Your task to perform on an android device: Open Reddit.com Image 0: 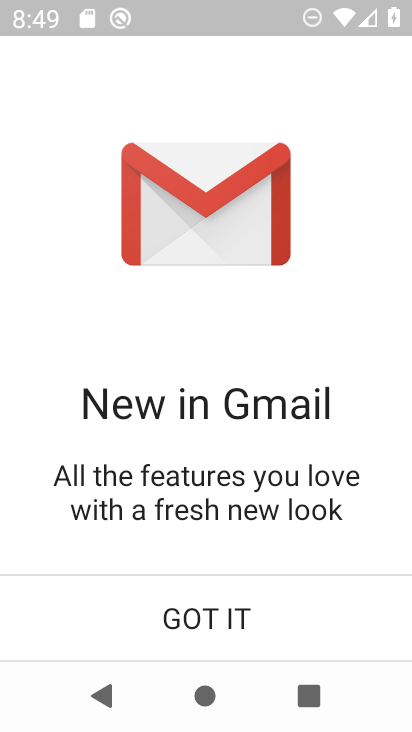
Step 0: press back button
Your task to perform on an android device: Open Reddit.com Image 1: 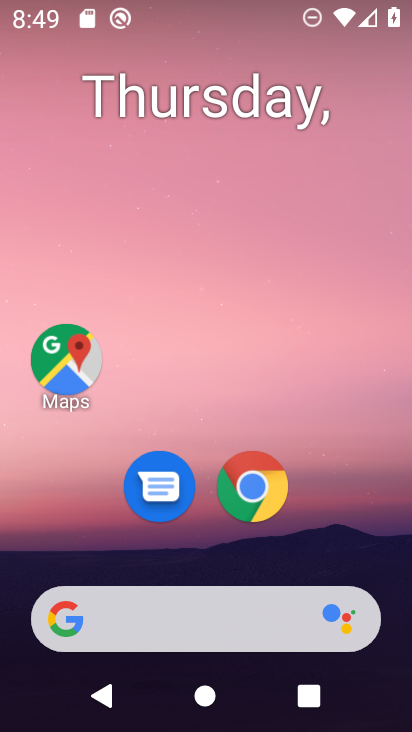
Step 1: click (272, 486)
Your task to perform on an android device: Open Reddit.com Image 2: 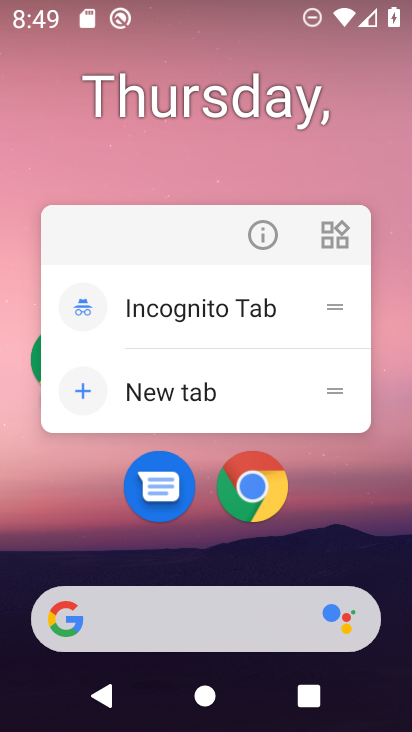
Step 2: click (256, 492)
Your task to perform on an android device: Open Reddit.com Image 3: 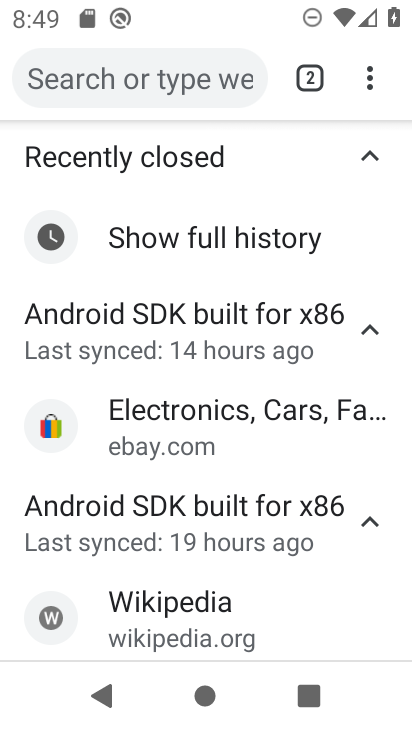
Step 3: click (320, 83)
Your task to perform on an android device: Open Reddit.com Image 4: 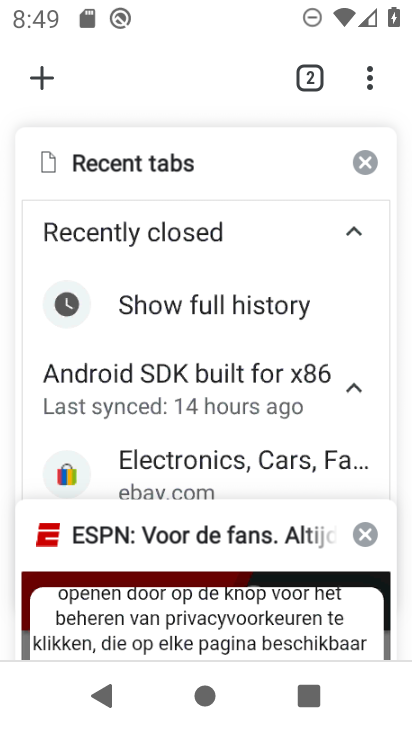
Step 4: click (35, 82)
Your task to perform on an android device: Open Reddit.com Image 5: 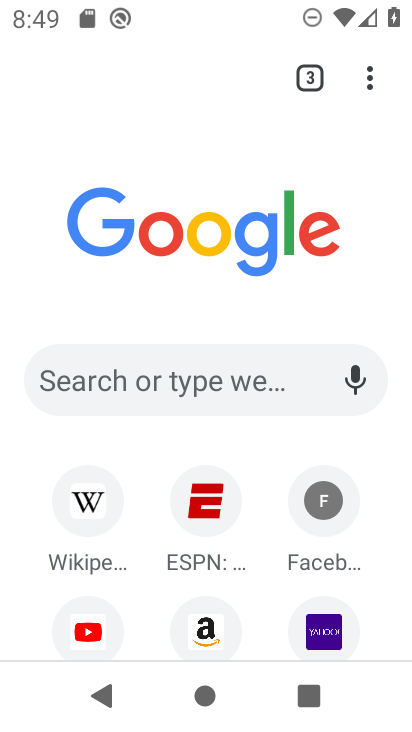
Step 5: click (163, 388)
Your task to perform on an android device: Open Reddit.com Image 6: 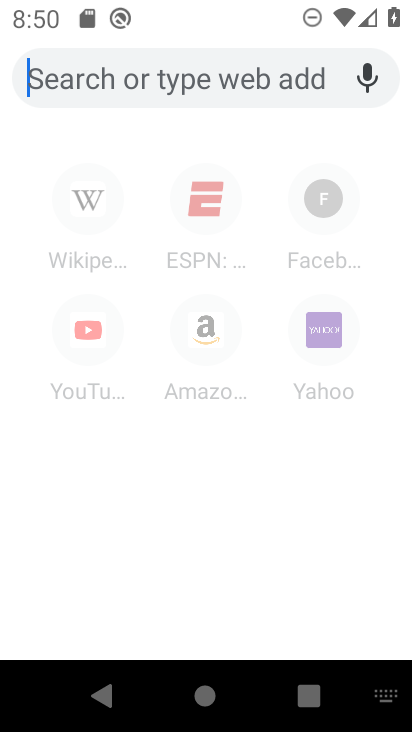
Step 6: type "reddit.com"
Your task to perform on an android device: Open Reddit.com Image 7: 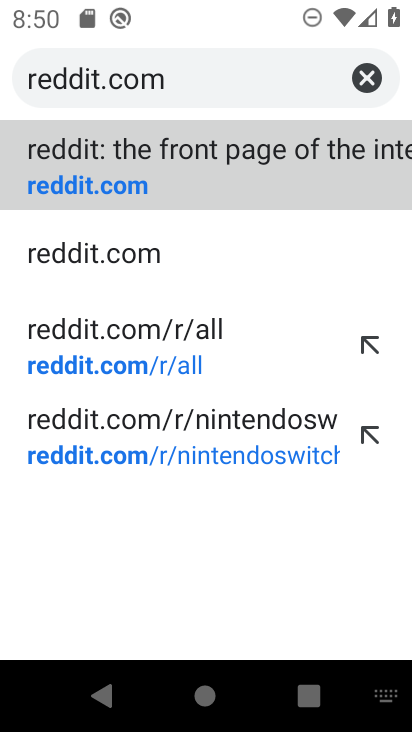
Step 7: click (102, 154)
Your task to perform on an android device: Open Reddit.com Image 8: 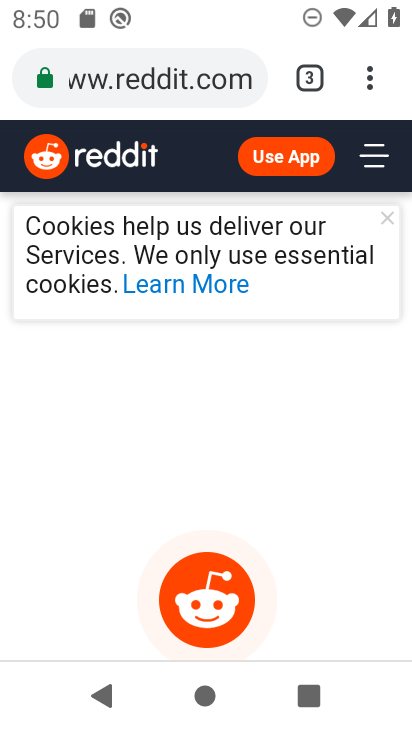
Step 8: task complete